Your task to perform on an android device: turn pop-ups on in chrome Image 0: 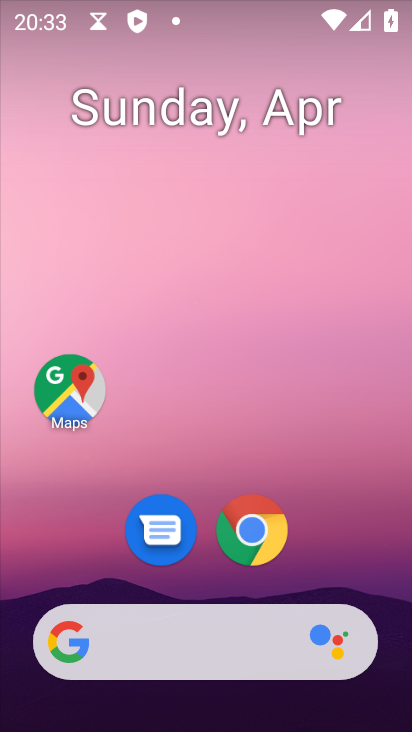
Step 0: click (236, 535)
Your task to perform on an android device: turn pop-ups on in chrome Image 1: 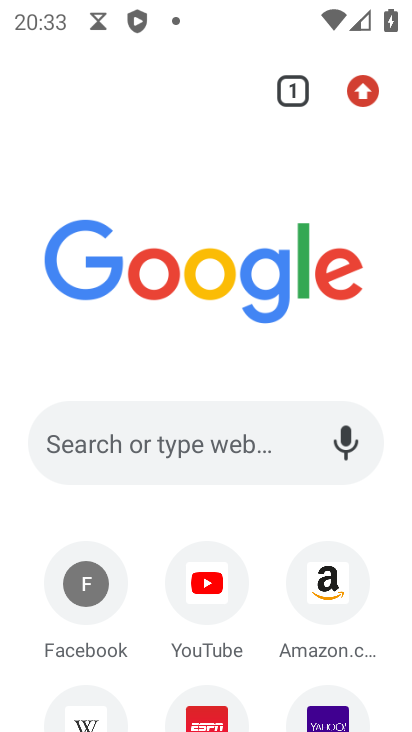
Step 1: click (357, 90)
Your task to perform on an android device: turn pop-ups on in chrome Image 2: 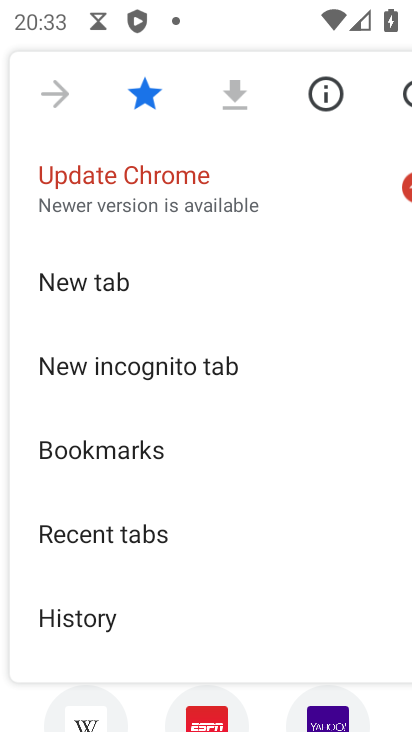
Step 2: drag from (102, 542) to (150, 142)
Your task to perform on an android device: turn pop-ups on in chrome Image 3: 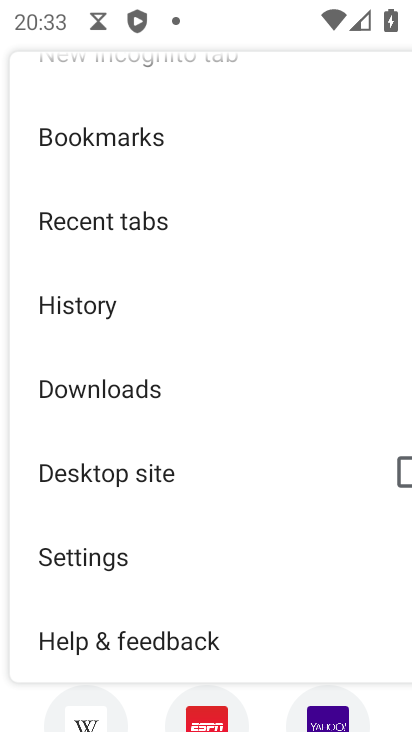
Step 3: click (59, 565)
Your task to perform on an android device: turn pop-ups on in chrome Image 4: 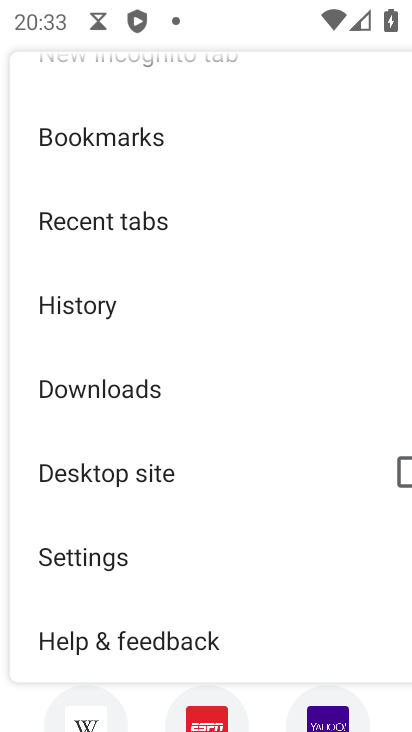
Step 4: click (59, 565)
Your task to perform on an android device: turn pop-ups on in chrome Image 5: 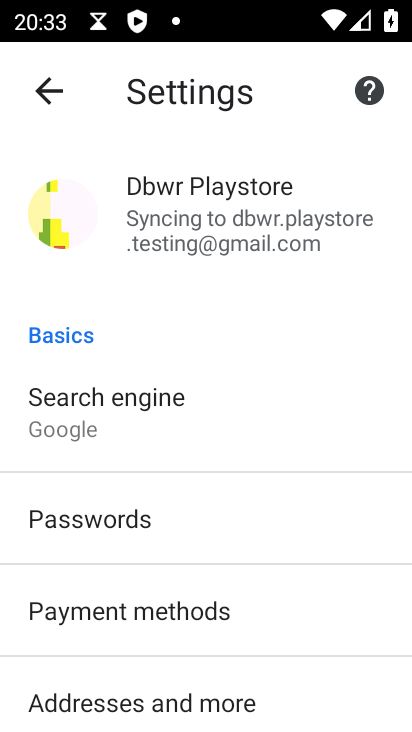
Step 5: drag from (170, 539) to (193, 137)
Your task to perform on an android device: turn pop-ups on in chrome Image 6: 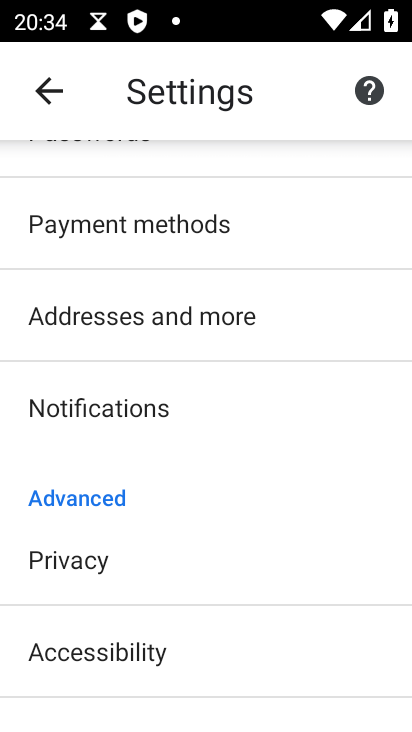
Step 6: drag from (242, 603) to (228, 266)
Your task to perform on an android device: turn pop-ups on in chrome Image 7: 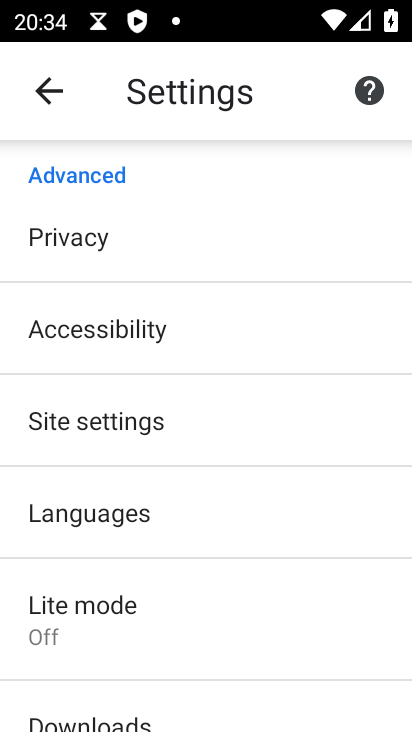
Step 7: click (141, 434)
Your task to perform on an android device: turn pop-ups on in chrome Image 8: 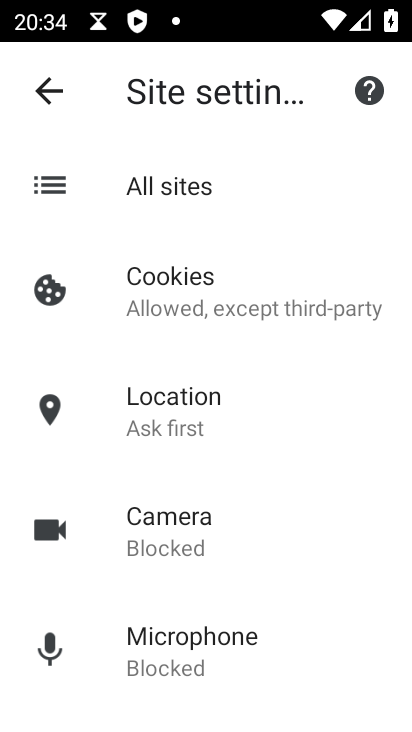
Step 8: drag from (145, 650) to (152, 31)
Your task to perform on an android device: turn pop-ups on in chrome Image 9: 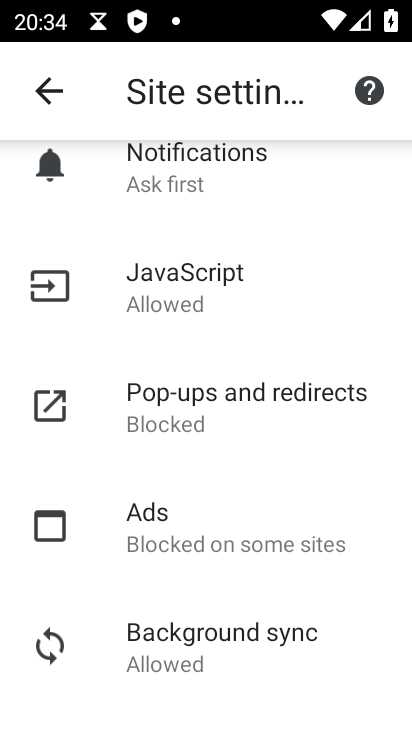
Step 9: click (190, 394)
Your task to perform on an android device: turn pop-ups on in chrome Image 10: 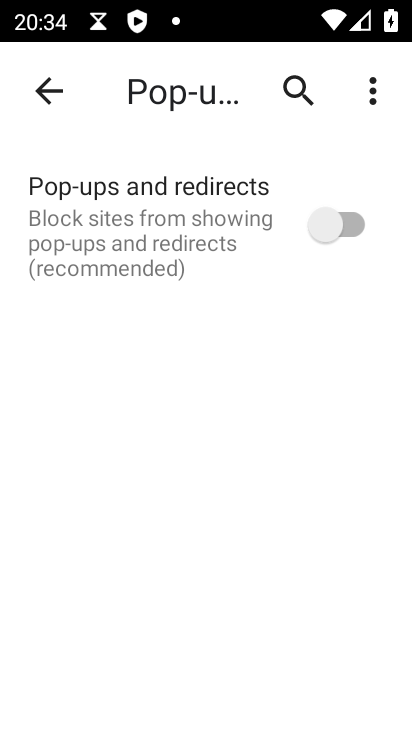
Step 10: click (338, 235)
Your task to perform on an android device: turn pop-ups on in chrome Image 11: 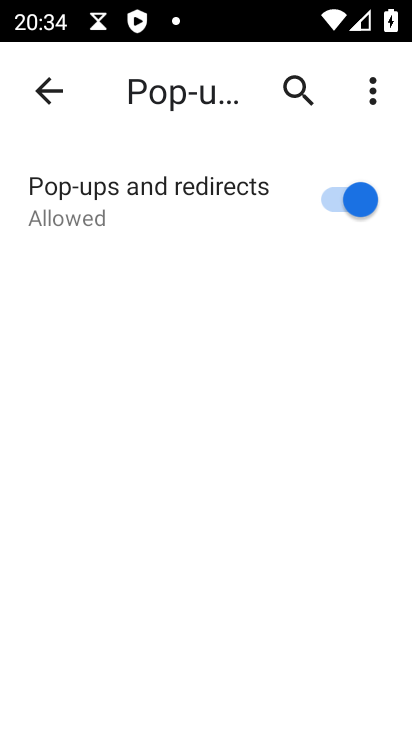
Step 11: task complete